Your task to perform on an android device: Show me popular videos on Youtube Image 0: 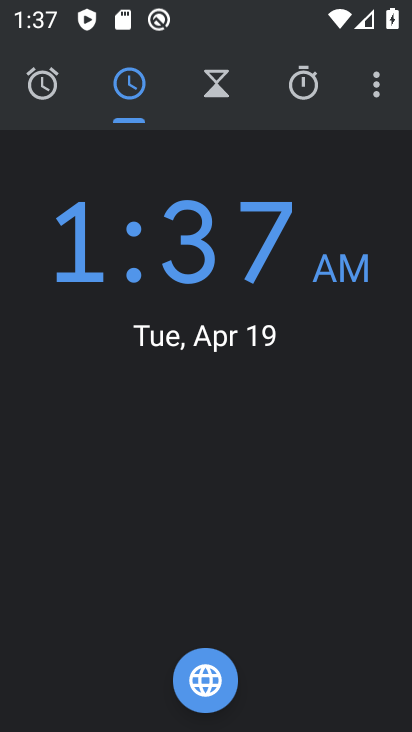
Step 0: press home button
Your task to perform on an android device: Show me popular videos on Youtube Image 1: 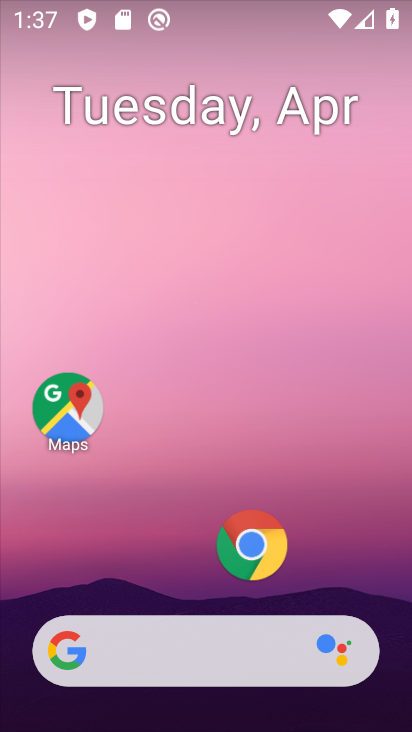
Step 1: drag from (176, 607) to (237, 226)
Your task to perform on an android device: Show me popular videos on Youtube Image 2: 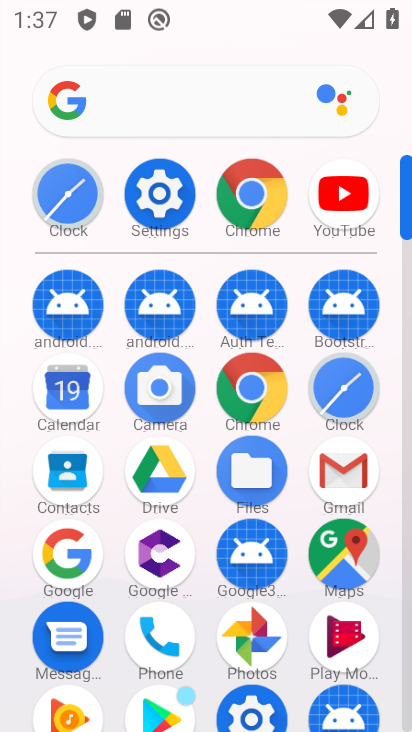
Step 2: drag from (170, 682) to (405, 270)
Your task to perform on an android device: Show me popular videos on Youtube Image 3: 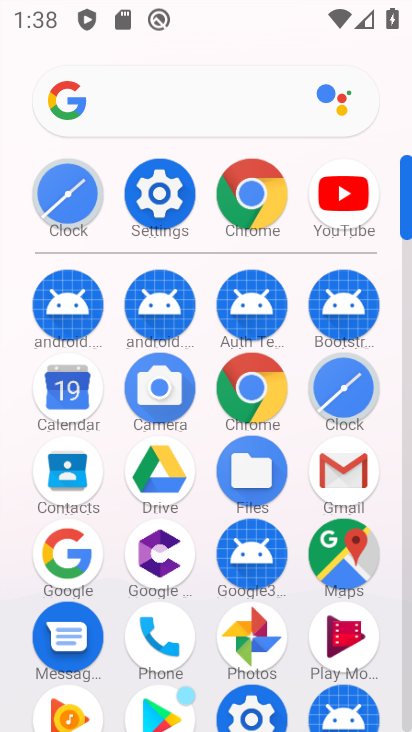
Step 3: drag from (202, 642) to (305, 172)
Your task to perform on an android device: Show me popular videos on Youtube Image 4: 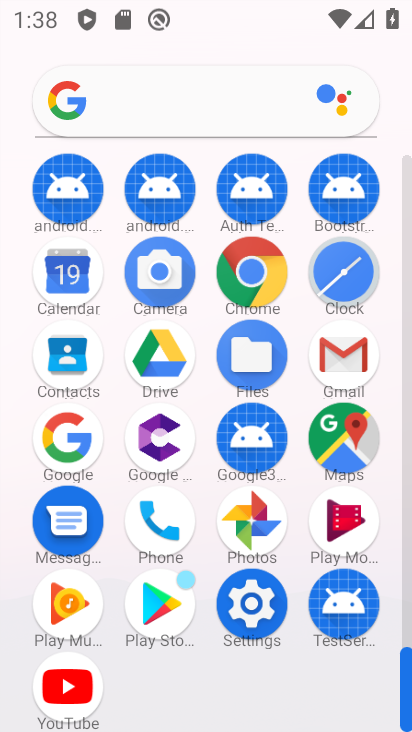
Step 4: click (58, 681)
Your task to perform on an android device: Show me popular videos on Youtube Image 5: 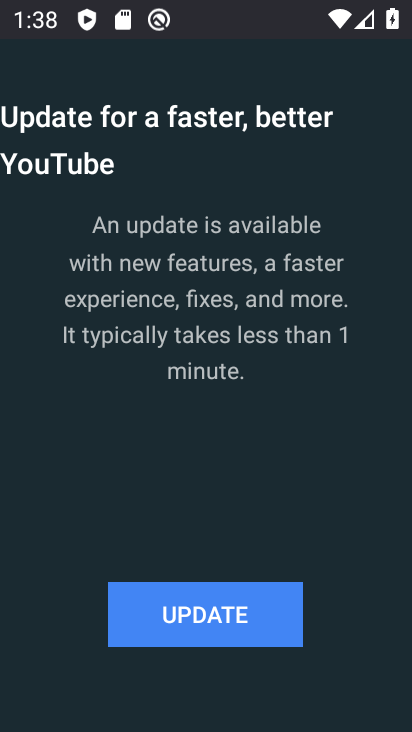
Step 5: task complete